Your task to perform on an android device: show emergency info Image 0: 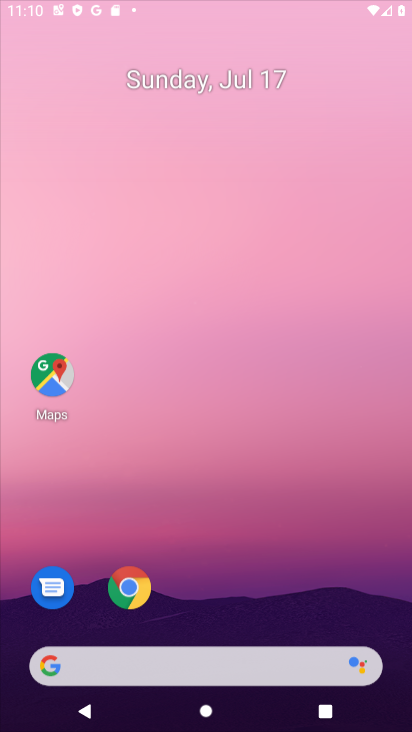
Step 0: press home button
Your task to perform on an android device: show emergency info Image 1: 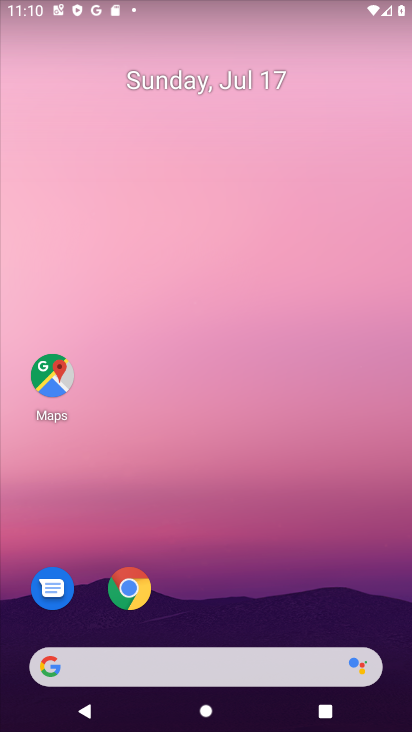
Step 1: drag from (241, 627) to (318, 25)
Your task to perform on an android device: show emergency info Image 2: 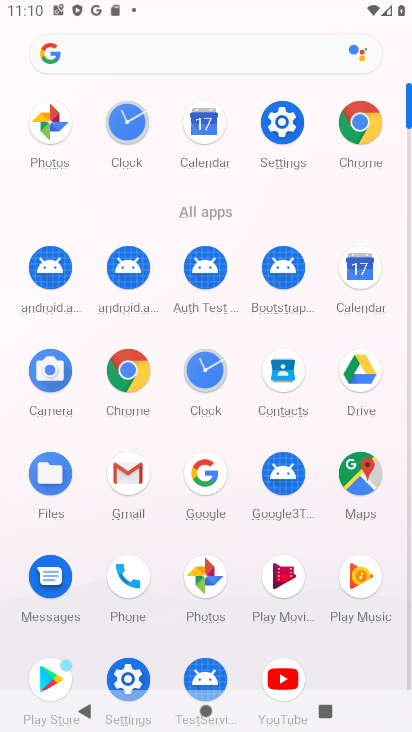
Step 2: click (277, 114)
Your task to perform on an android device: show emergency info Image 3: 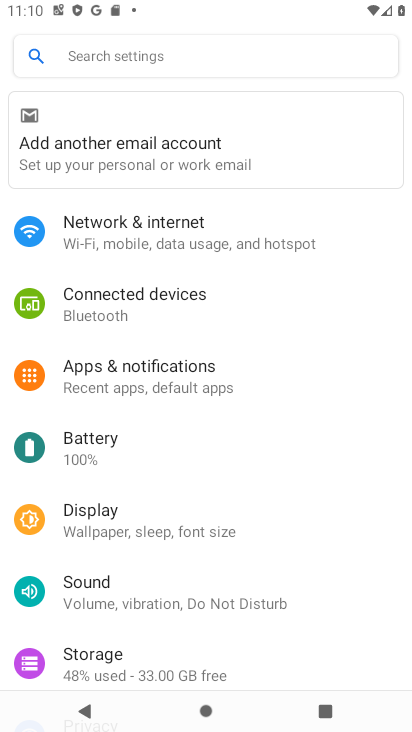
Step 3: drag from (204, 656) to (267, 108)
Your task to perform on an android device: show emergency info Image 4: 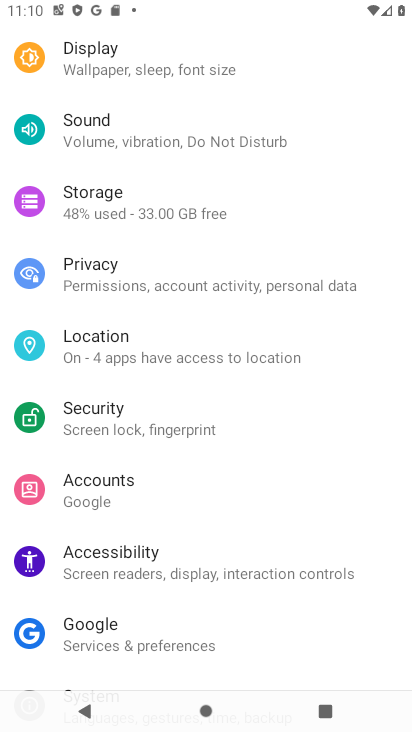
Step 4: drag from (233, 635) to (280, 68)
Your task to perform on an android device: show emergency info Image 5: 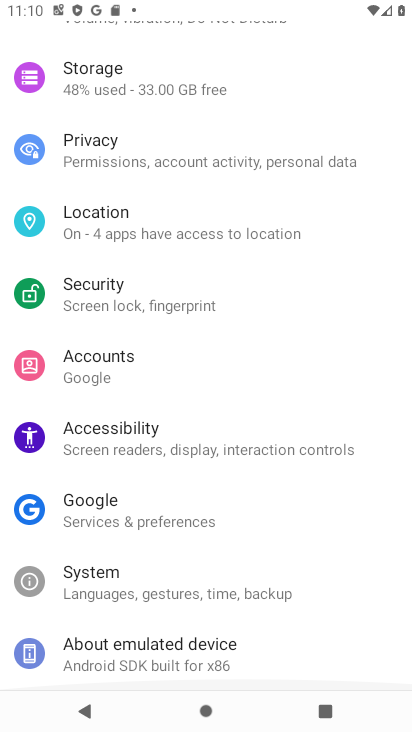
Step 5: click (243, 648)
Your task to perform on an android device: show emergency info Image 6: 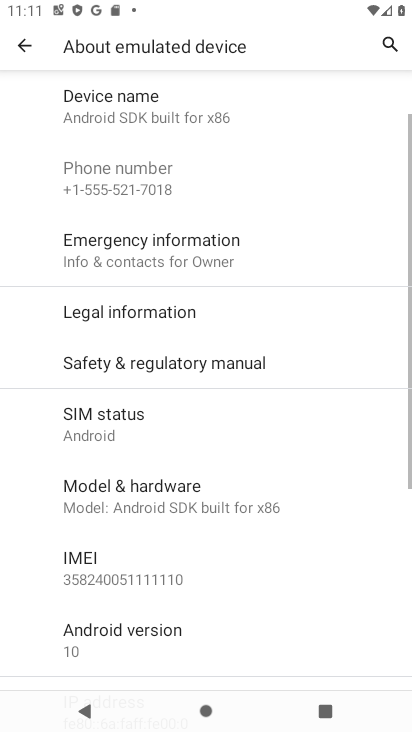
Step 6: click (255, 244)
Your task to perform on an android device: show emergency info Image 7: 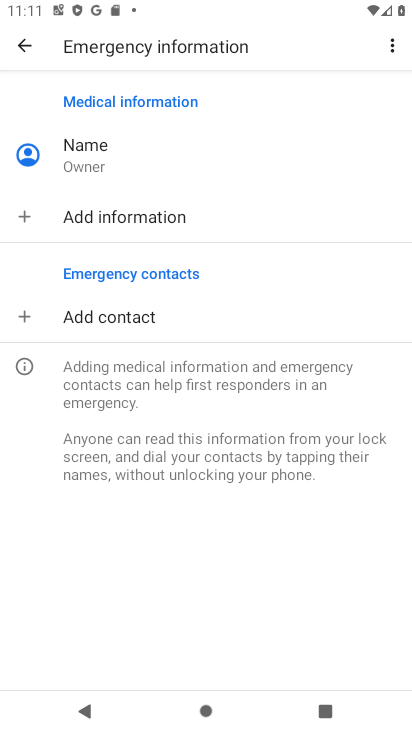
Step 7: task complete